Your task to perform on an android device: Open ESPN.com Image 0: 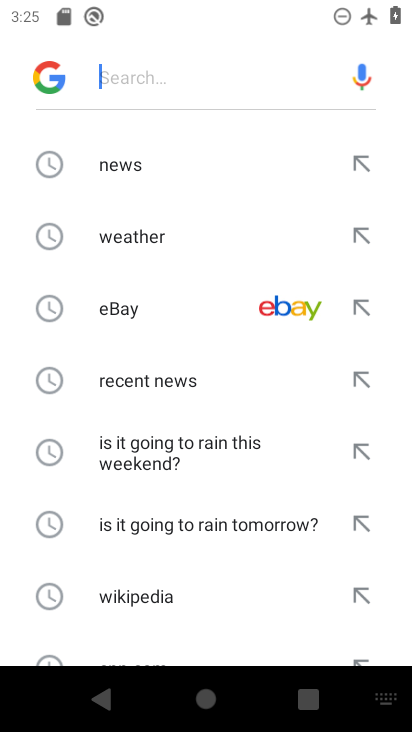
Step 0: press home button
Your task to perform on an android device: Open ESPN.com Image 1: 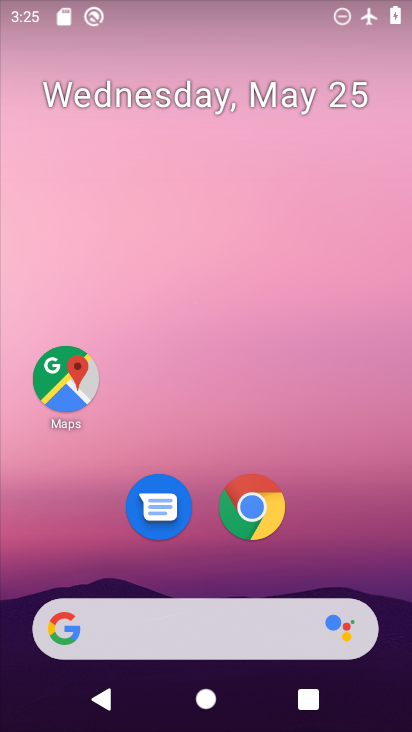
Step 1: click (264, 497)
Your task to perform on an android device: Open ESPN.com Image 2: 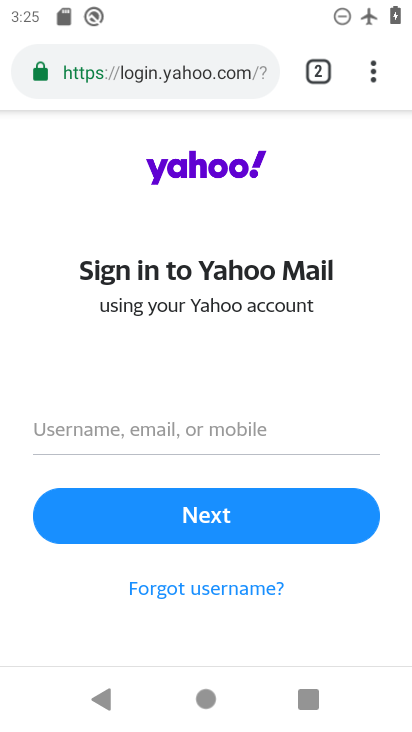
Step 2: click (196, 72)
Your task to perform on an android device: Open ESPN.com Image 3: 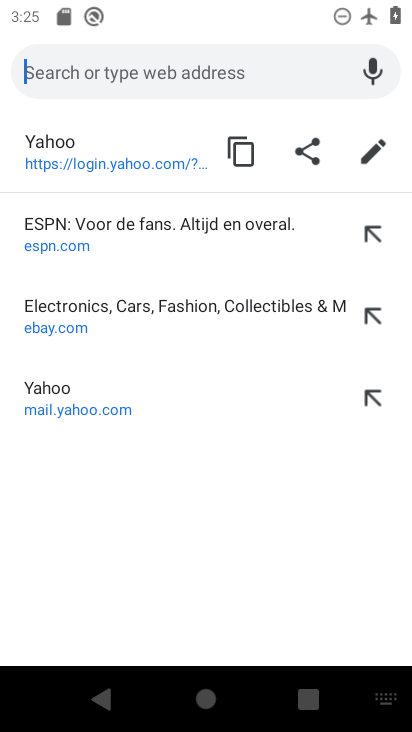
Step 3: type "espn"
Your task to perform on an android device: Open ESPN.com Image 4: 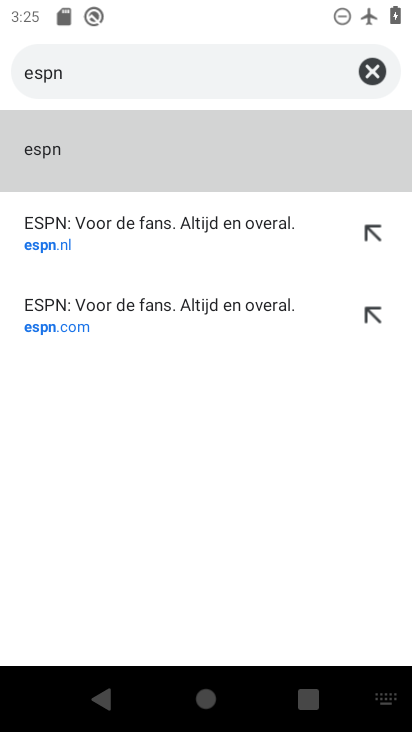
Step 4: click (233, 239)
Your task to perform on an android device: Open ESPN.com Image 5: 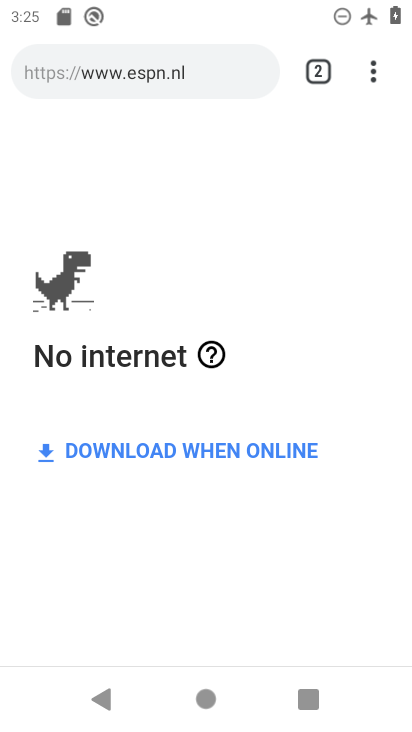
Step 5: task complete